Your task to perform on an android device: clear all cookies in the chrome app Image 0: 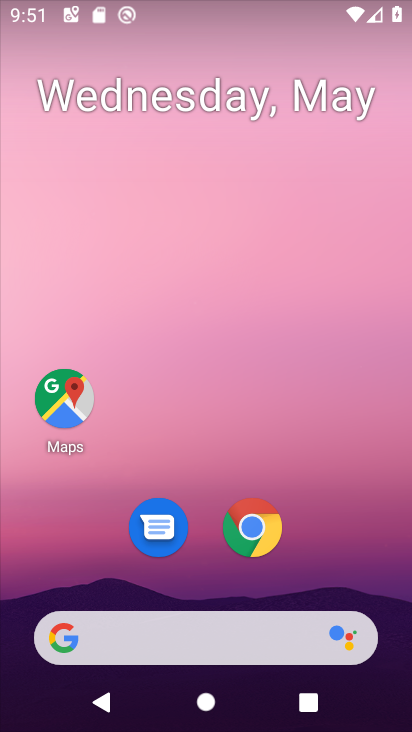
Step 0: drag from (340, 517) to (332, 52)
Your task to perform on an android device: clear all cookies in the chrome app Image 1: 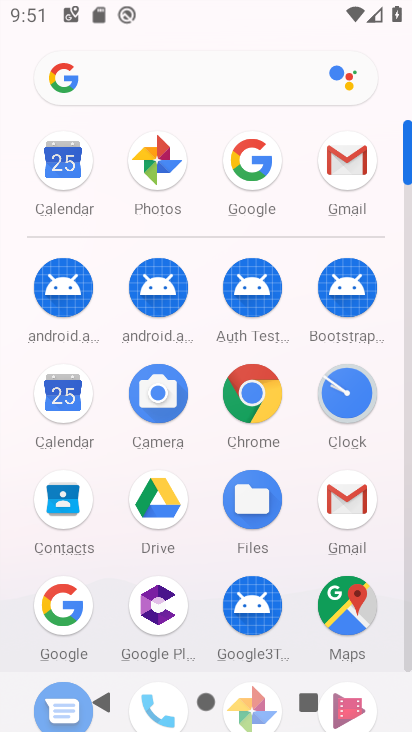
Step 1: click (251, 389)
Your task to perform on an android device: clear all cookies in the chrome app Image 2: 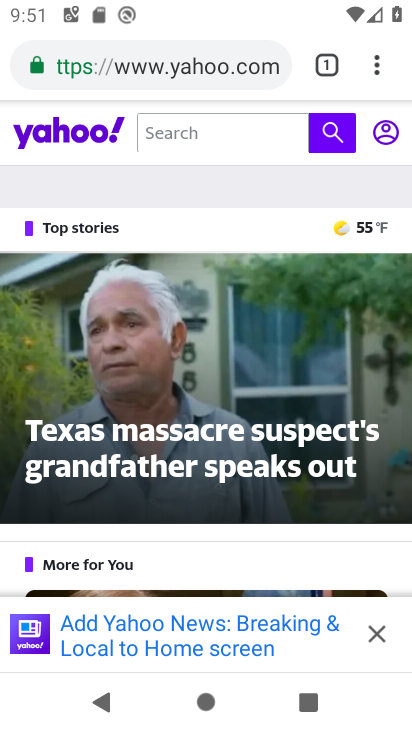
Step 2: click (371, 65)
Your task to perform on an android device: clear all cookies in the chrome app Image 3: 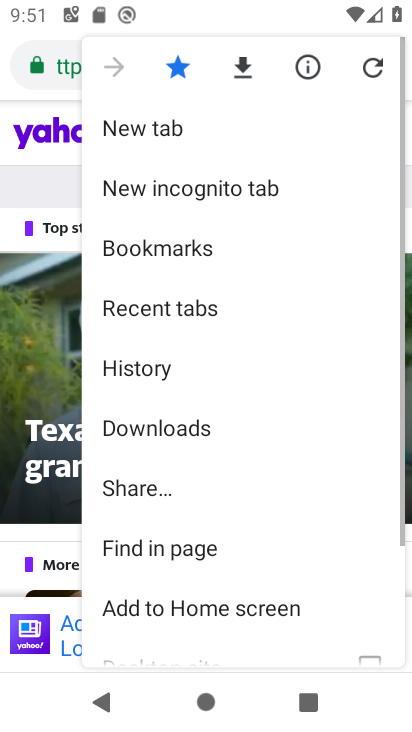
Step 3: drag from (202, 549) to (234, 190)
Your task to perform on an android device: clear all cookies in the chrome app Image 4: 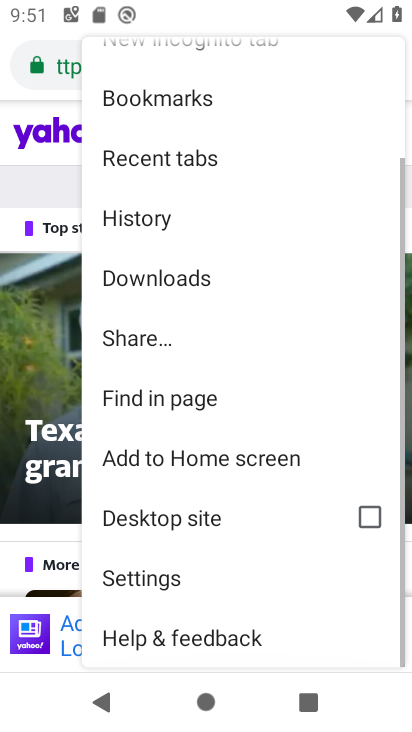
Step 4: click (175, 586)
Your task to perform on an android device: clear all cookies in the chrome app Image 5: 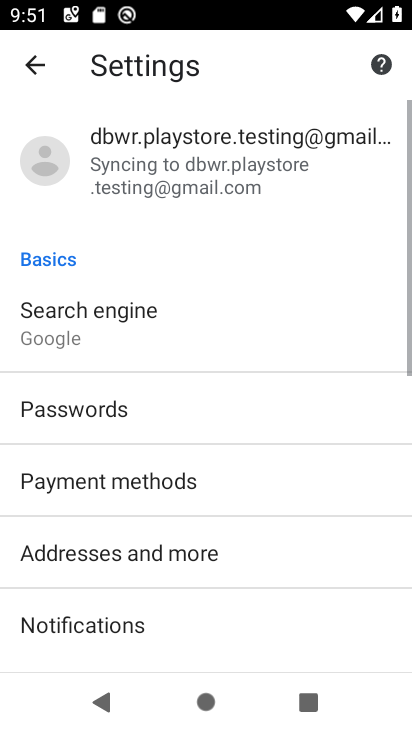
Step 5: drag from (207, 574) to (252, 200)
Your task to perform on an android device: clear all cookies in the chrome app Image 6: 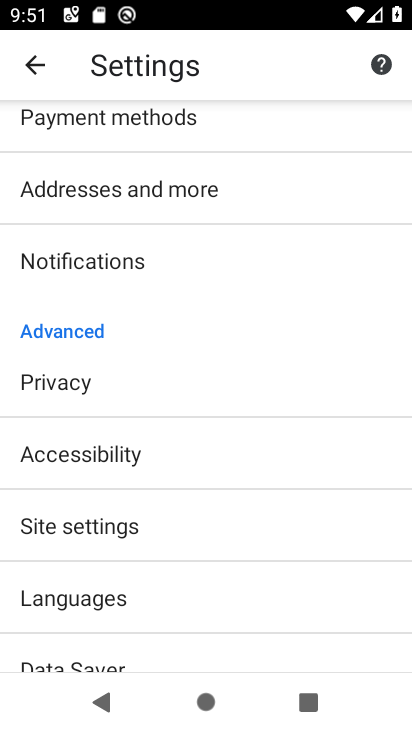
Step 6: click (98, 534)
Your task to perform on an android device: clear all cookies in the chrome app Image 7: 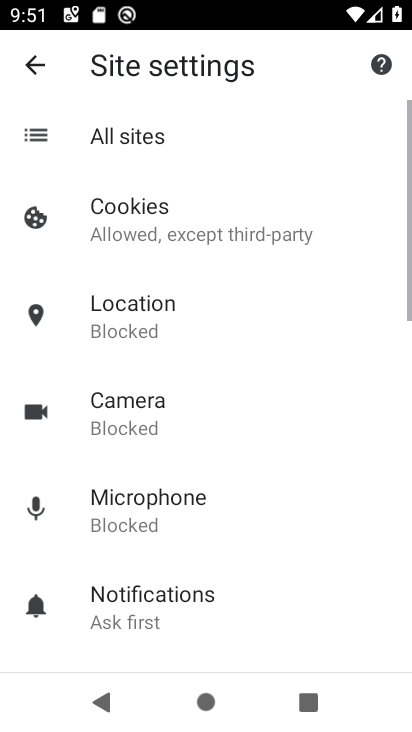
Step 7: click (262, 230)
Your task to perform on an android device: clear all cookies in the chrome app Image 8: 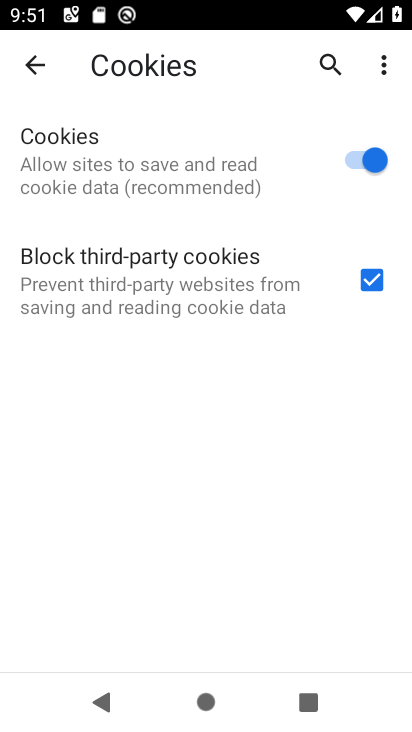
Step 8: task complete